Your task to perform on an android device: set default search engine in the chrome app Image 0: 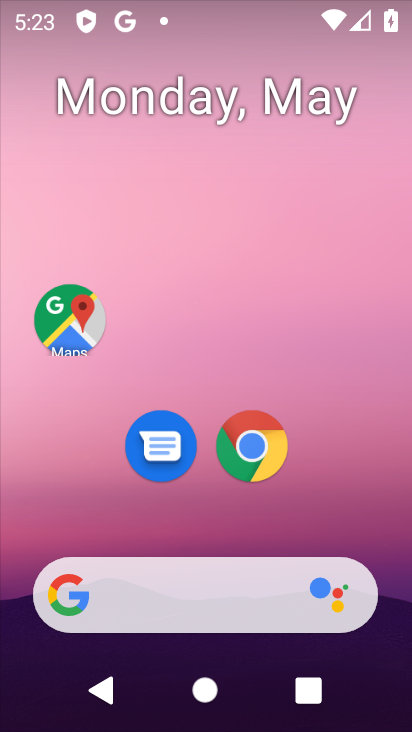
Step 0: click (273, 447)
Your task to perform on an android device: set default search engine in the chrome app Image 1: 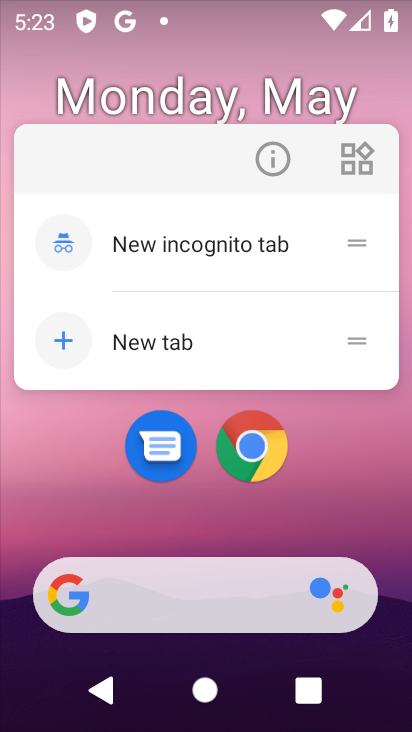
Step 1: click (252, 442)
Your task to perform on an android device: set default search engine in the chrome app Image 2: 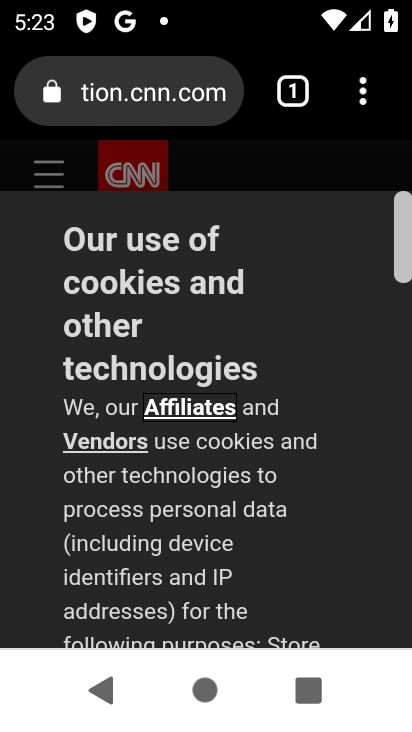
Step 2: drag from (363, 88) to (123, 483)
Your task to perform on an android device: set default search engine in the chrome app Image 3: 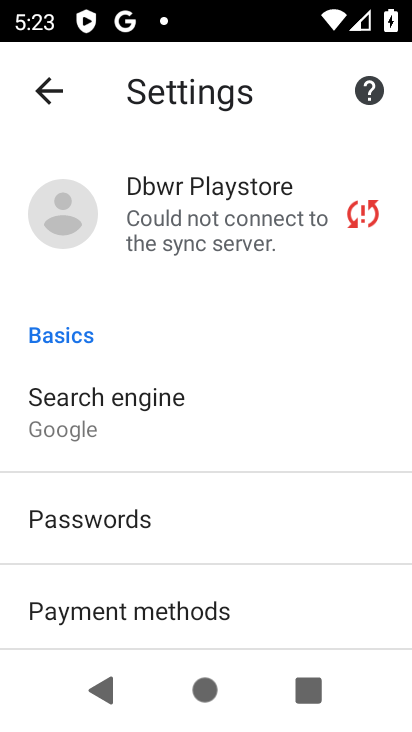
Step 3: click (78, 402)
Your task to perform on an android device: set default search engine in the chrome app Image 4: 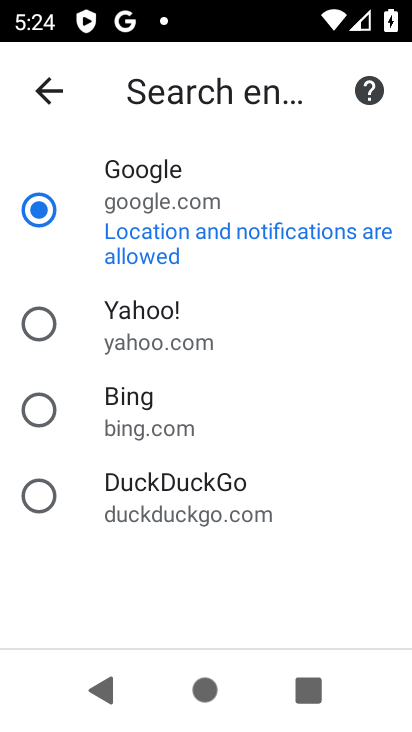
Step 4: task complete